Your task to perform on an android device: set the stopwatch Image 0: 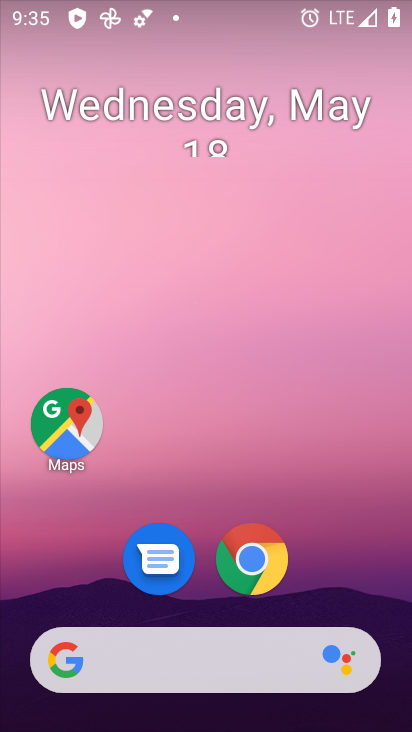
Step 0: drag from (312, 450) to (238, 0)
Your task to perform on an android device: set the stopwatch Image 1: 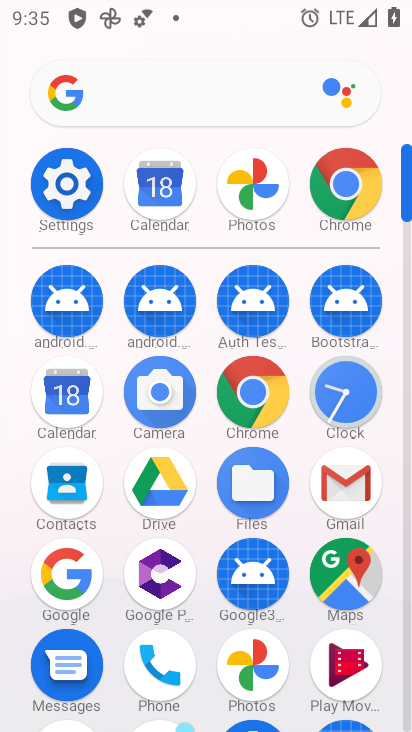
Step 1: drag from (0, 599) to (10, 252)
Your task to perform on an android device: set the stopwatch Image 2: 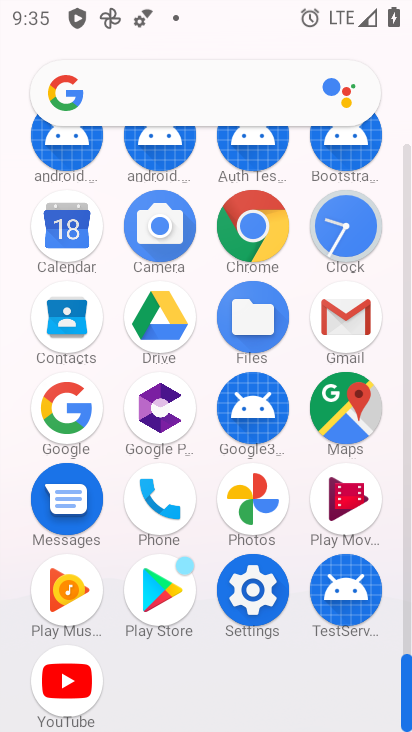
Step 2: click (347, 223)
Your task to perform on an android device: set the stopwatch Image 3: 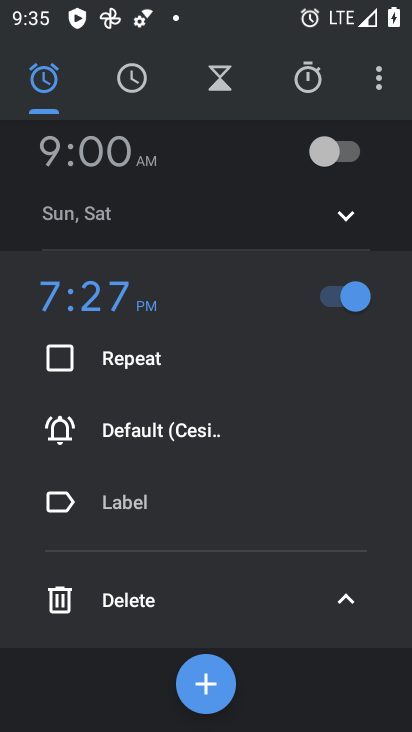
Step 3: click (306, 76)
Your task to perform on an android device: set the stopwatch Image 4: 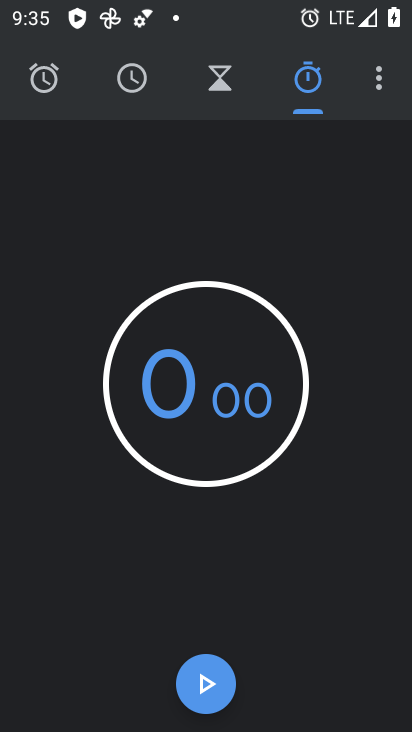
Step 4: click (204, 701)
Your task to perform on an android device: set the stopwatch Image 5: 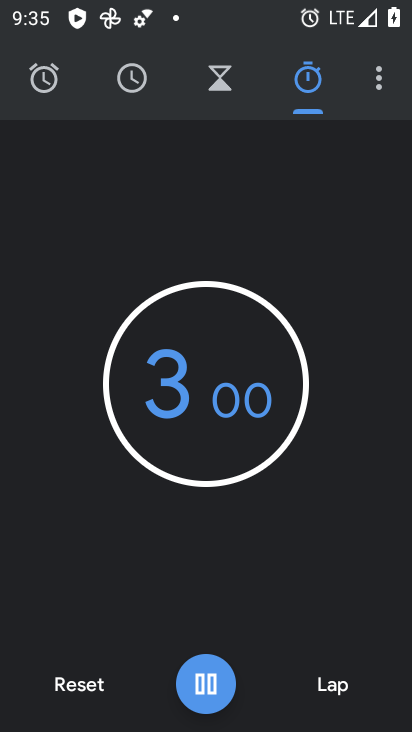
Step 5: task complete